Your task to perform on an android device: turn off priority inbox in the gmail app Image 0: 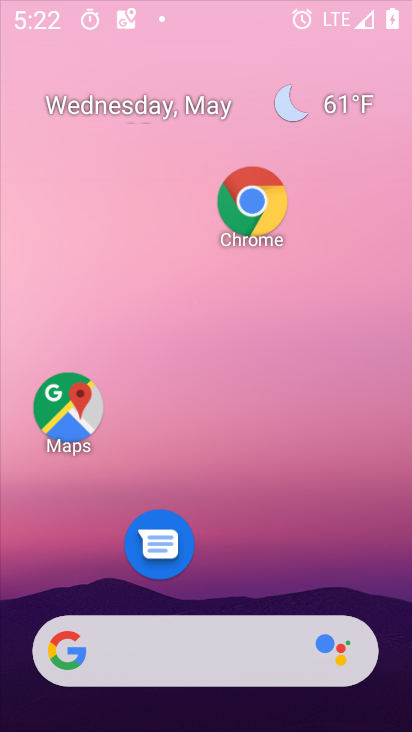
Step 0: click (251, 491)
Your task to perform on an android device: turn off priority inbox in the gmail app Image 1: 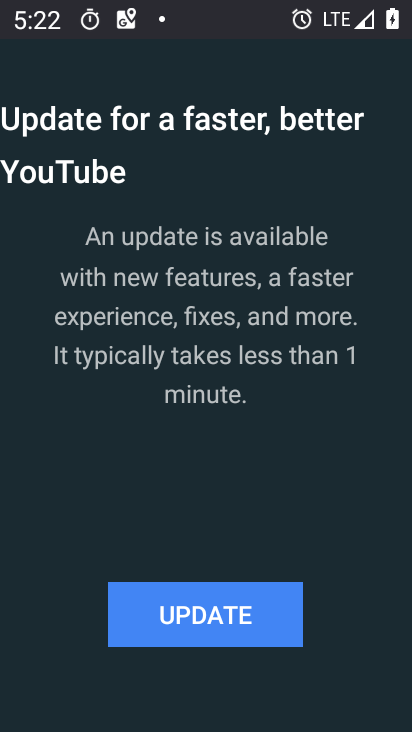
Step 1: press home button
Your task to perform on an android device: turn off priority inbox in the gmail app Image 2: 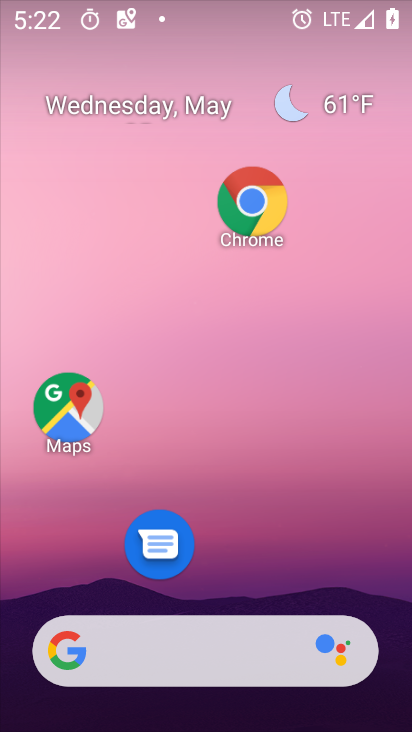
Step 2: drag from (122, 611) to (130, 166)
Your task to perform on an android device: turn off priority inbox in the gmail app Image 3: 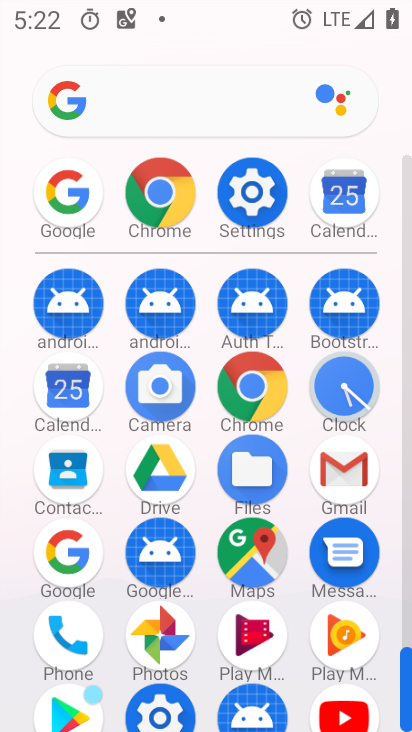
Step 3: click (331, 469)
Your task to perform on an android device: turn off priority inbox in the gmail app Image 4: 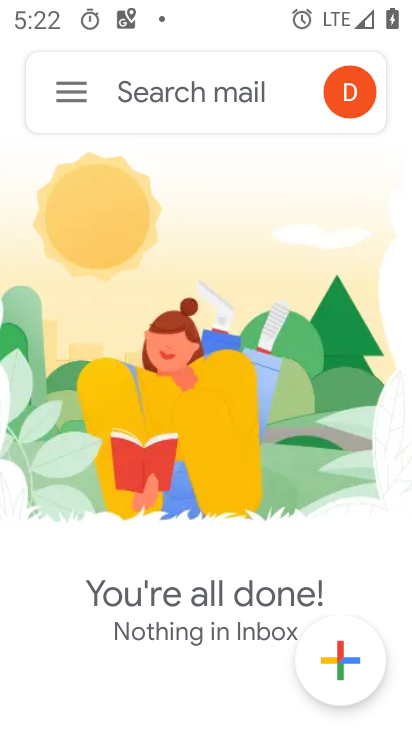
Step 4: click (67, 91)
Your task to perform on an android device: turn off priority inbox in the gmail app Image 5: 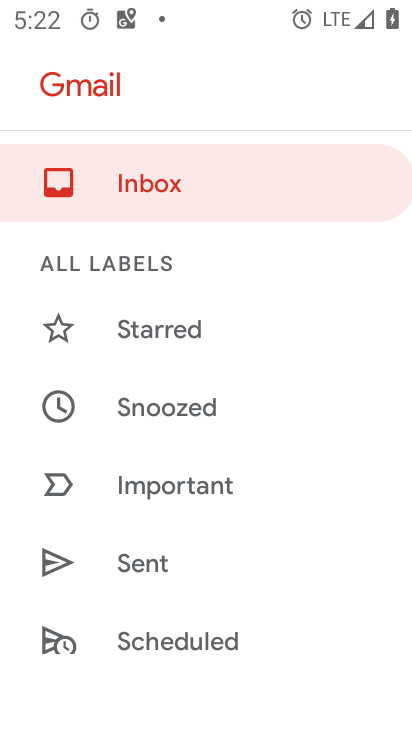
Step 5: drag from (139, 650) to (139, 209)
Your task to perform on an android device: turn off priority inbox in the gmail app Image 6: 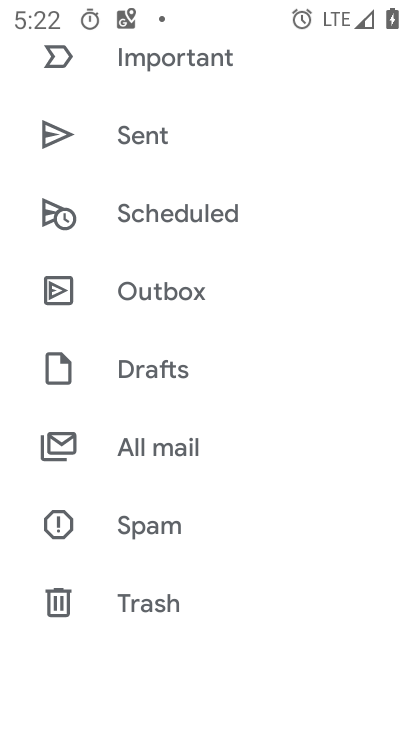
Step 6: drag from (185, 634) to (154, 311)
Your task to perform on an android device: turn off priority inbox in the gmail app Image 7: 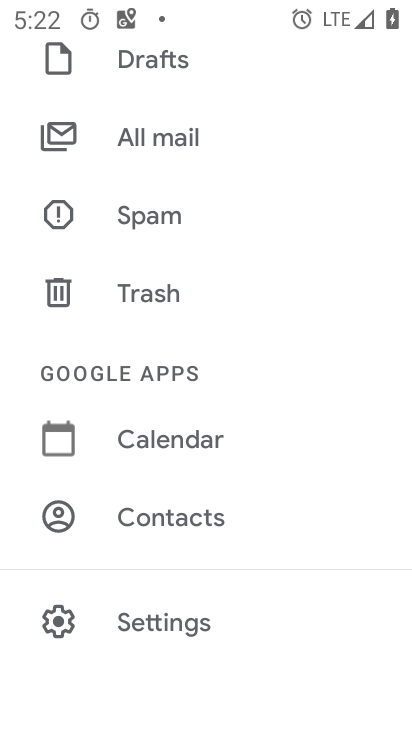
Step 7: click (159, 632)
Your task to perform on an android device: turn off priority inbox in the gmail app Image 8: 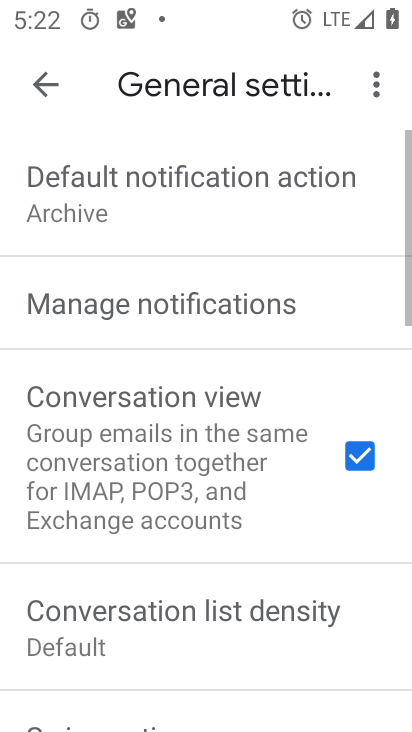
Step 8: drag from (170, 659) to (162, 397)
Your task to perform on an android device: turn off priority inbox in the gmail app Image 9: 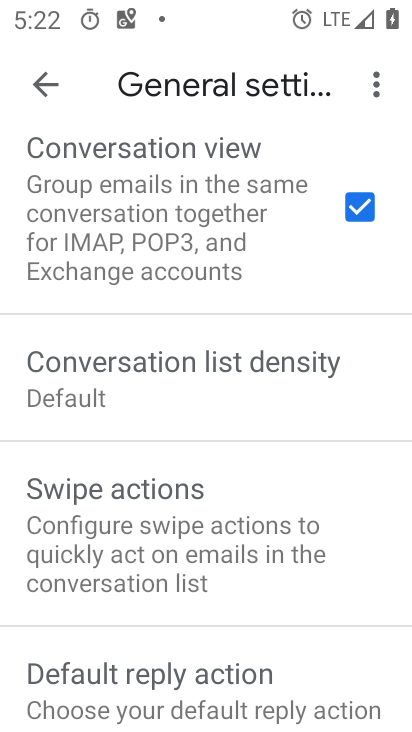
Step 9: drag from (175, 688) to (151, 375)
Your task to perform on an android device: turn off priority inbox in the gmail app Image 10: 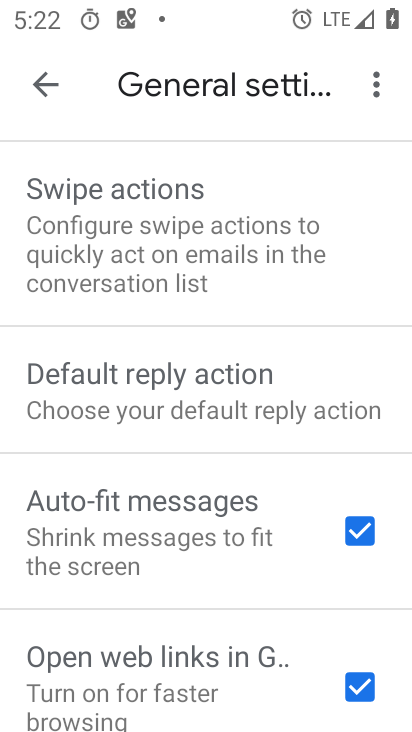
Step 10: drag from (129, 689) to (142, 394)
Your task to perform on an android device: turn off priority inbox in the gmail app Image 11: 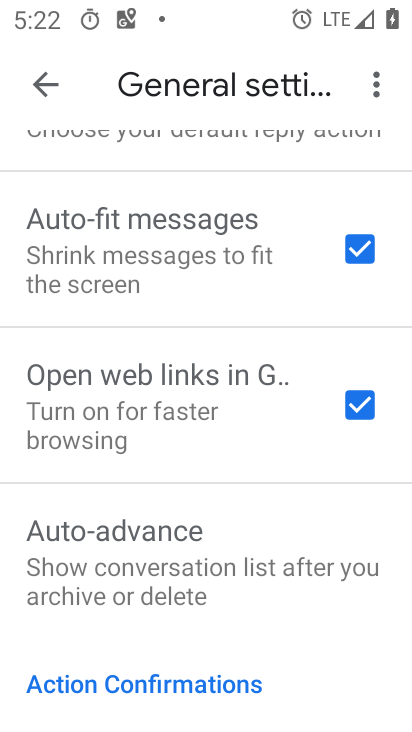
Step 11: click (159, 378)
Your task to perform on an android device: turn off priority inbox in the gmail app Image 12: 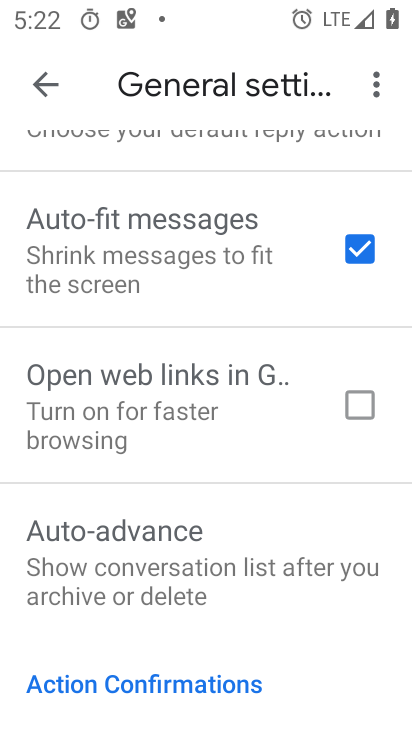
Step 12: drag from (259, 184) to (224, 593)
Your task to perform on an android device: turn off priority inbox in the gmail app Image 13: 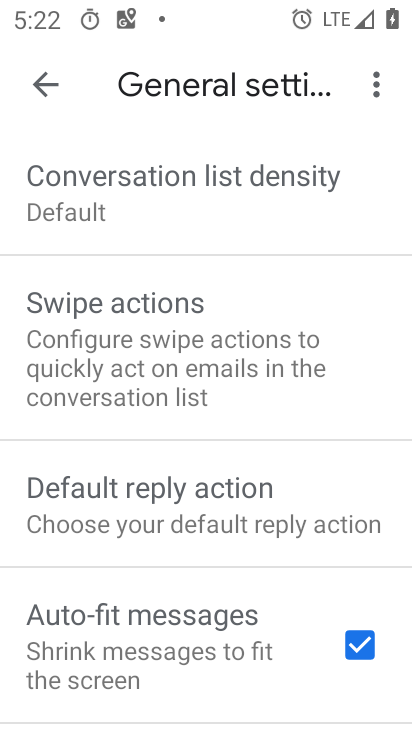
Step 13: drag from (218, 194) to (230, 570)
Your task to perform on an android device: turn off priority inbox in the gmail app Image 14: 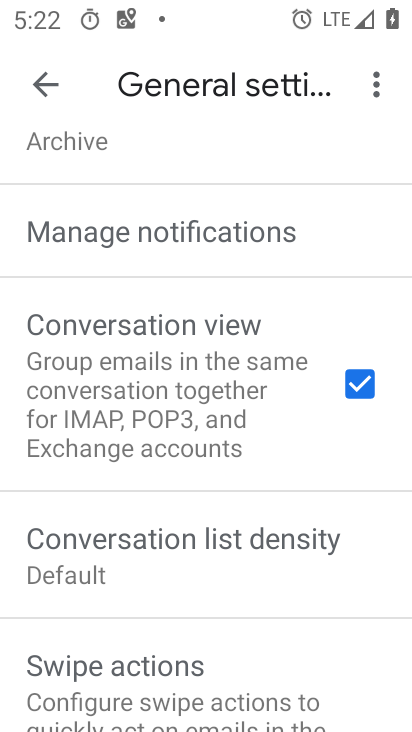
Step 14: drag from (231, 228) to (205, 595)
Your task to perform on an android device: turn off priority inbox in the gmail app Image 15: 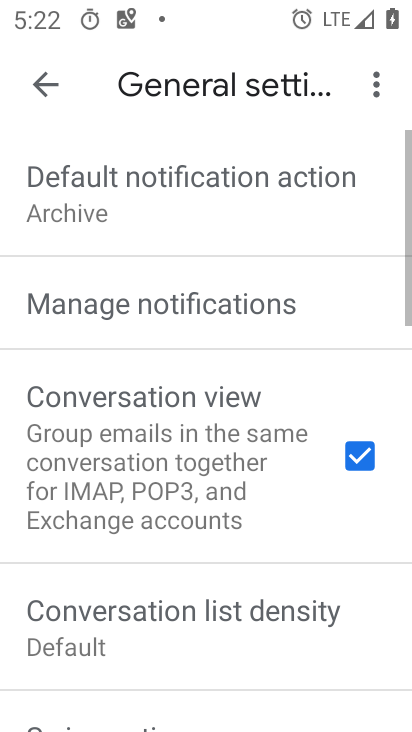
Step 15: click (41, 97)
Your task to perform on an android device: turn off priority inbox in the gmail app Image 16: 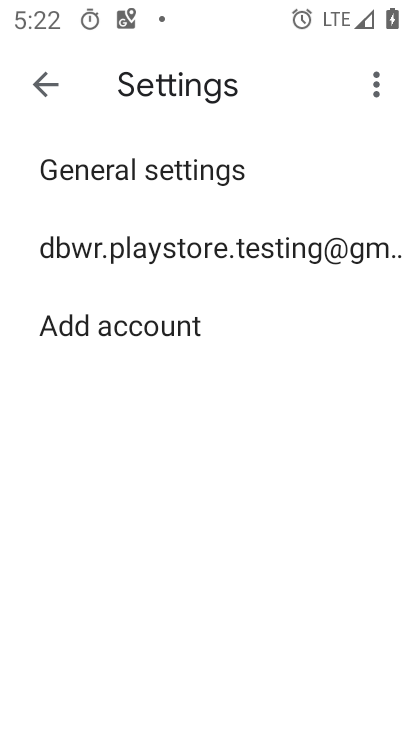
Step 16: click (147, 251)
Your task to perform on an android device: turn off priority inbox in the gmail app Image 17: 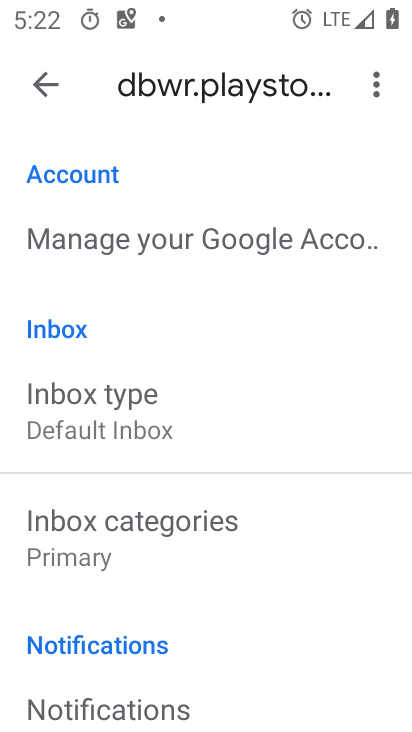
Step 17: task complete